Your task to perform on an android device: Open maps Image 0: 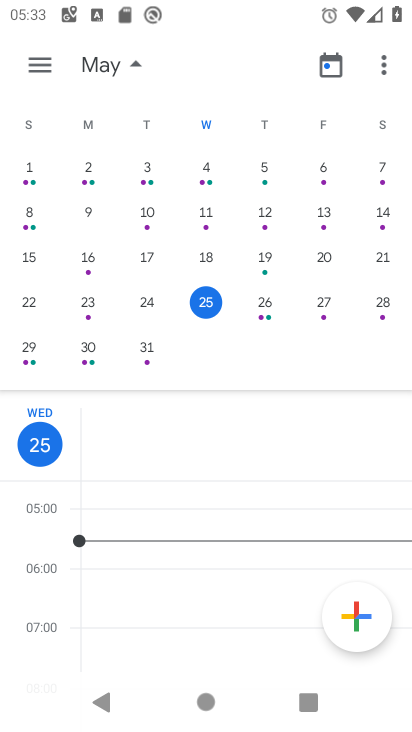
Step 0: press home button
Your task to perform on an android device: Open maps Image 1: 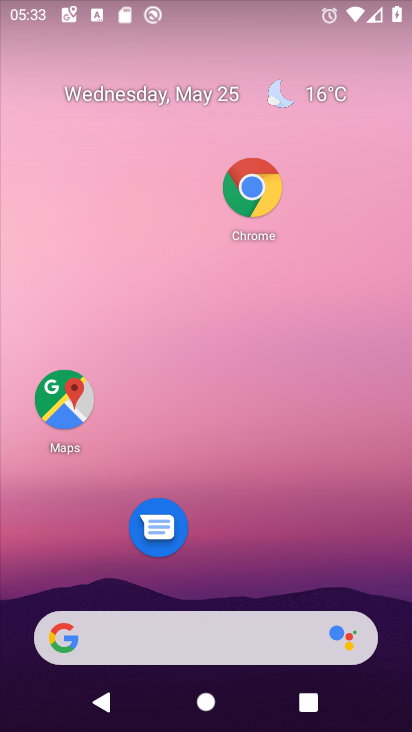
Step 1: drag from (363, 624) to (71, 684)
Your task to perform on an android device: Open maps Image 2: 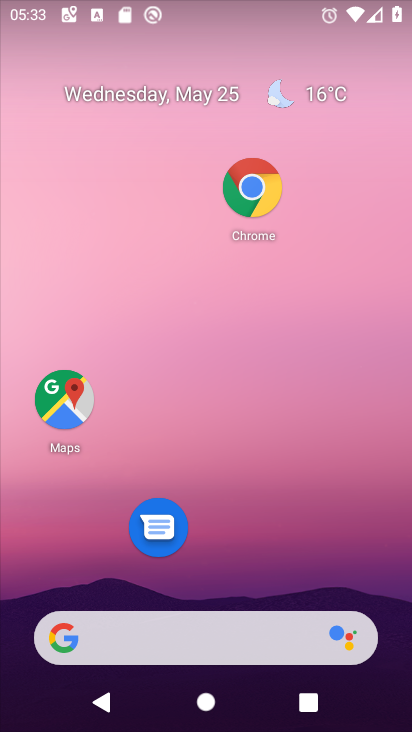
Step 2: drag from (330, 647) to (276, 93)
Your task to perform on an android device: Open maps Image 3: 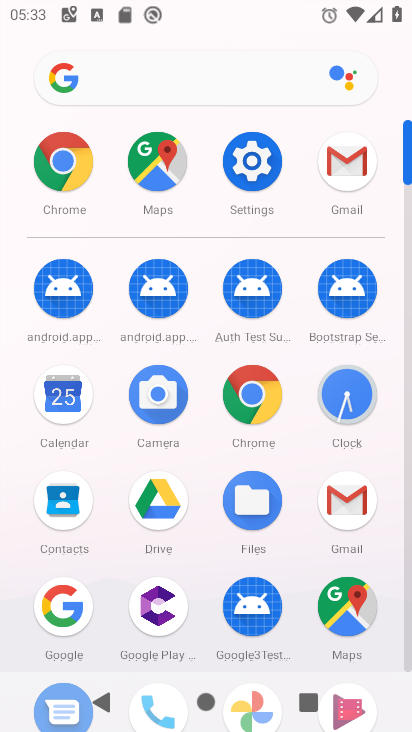
Step 3: click (347, 592)
Your task to perform on an android device: Open maps Image 4: 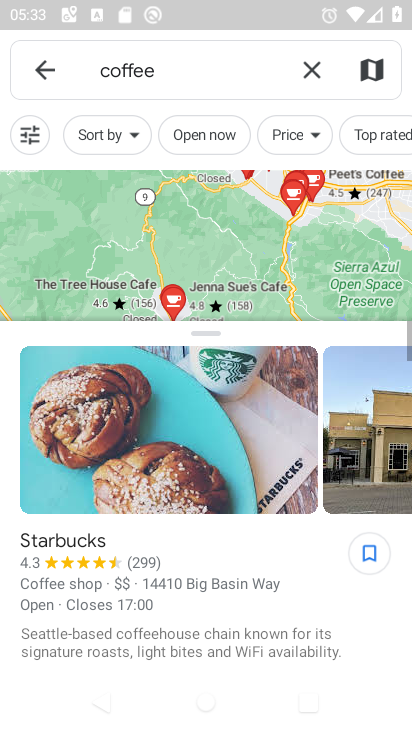
Step 4: task complete